Your task to perform on an android device: Play the last video I watched on Youtube Image 0: 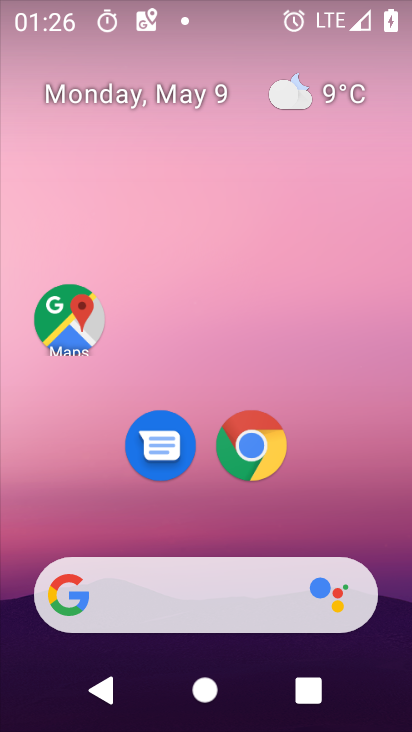
Step 0: drag from (385, 543) to (385, 7)
Your task to perform on an android device: Play the last video I watched on Youtube Image 1: 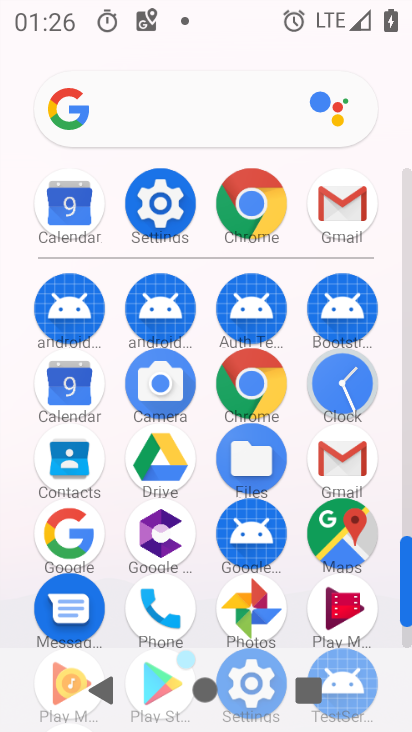
Step 1: drag from (404, 550) to (402, 478)
Your task to perform on an android device: Play the last video I watched on Youtube Image 2: 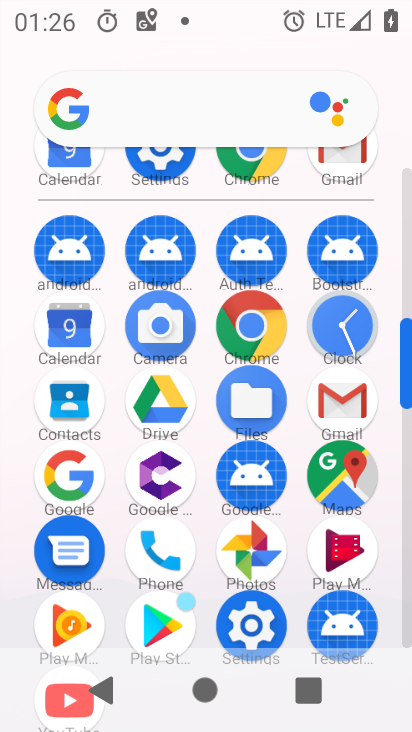
Step 2: click (410, 345)
Your task to perform on an android device: Play the last video I watched on Youtube Image 3: 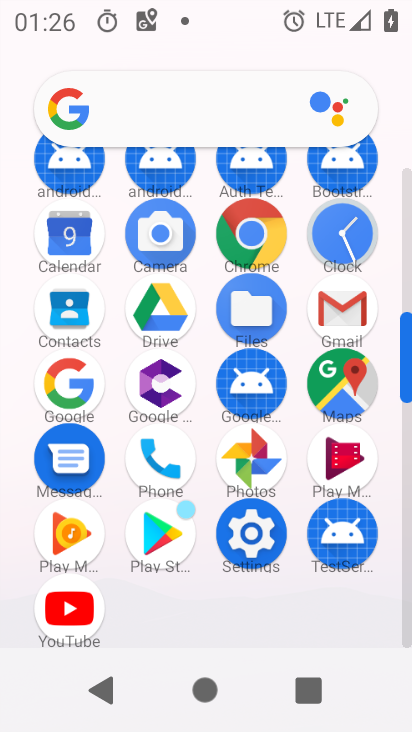
Step 3: click (63, 609)
Your task to perform on an android device: Play the last video I watched on Youtube Image 4: 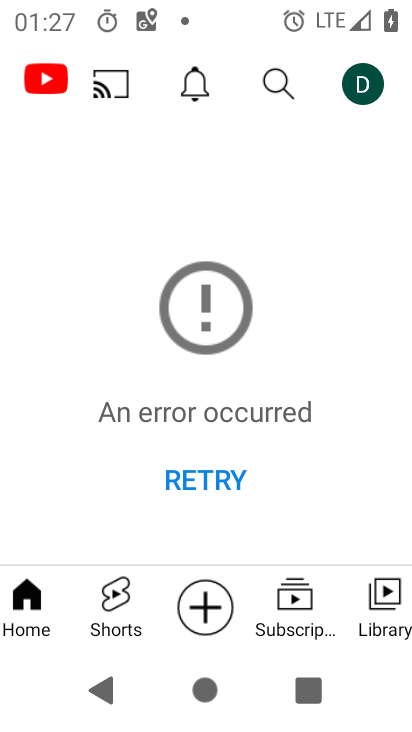
Step 4: click (381, 610)
Your task to perform on an android device: Play the last video I watched on Youtube Image 5: 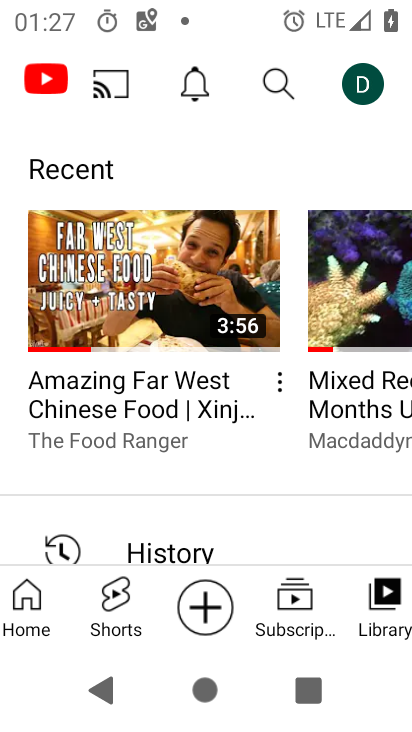
Step 5: click (165, 546)
Your task to perform on an android device: Play the last video I watched on Youtube Image 6: 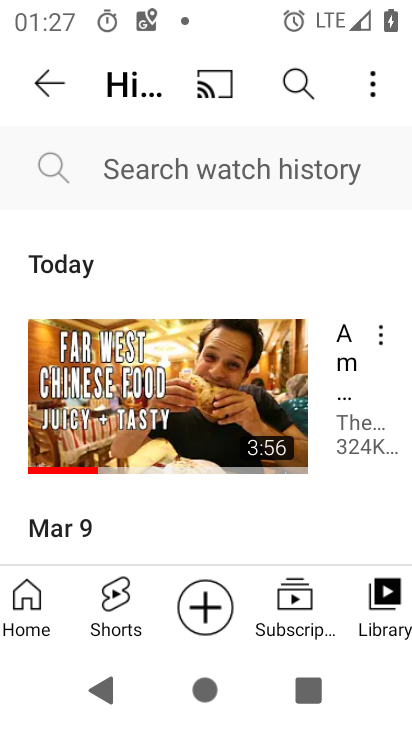
Step 6: drag from (143, 489) to (142, 392)
Your task to perform on an android device: Play the last video I watched on Youtube Image 7: 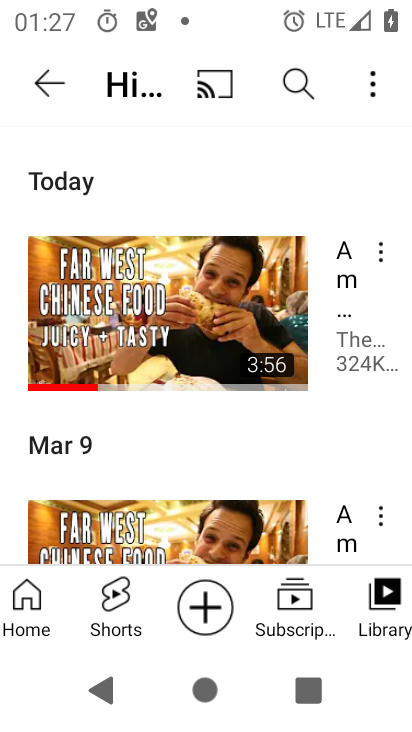
Step 7: click (156, 510)
Your task to perform on an android device: Play the last video I watched on Youtube Image 8: 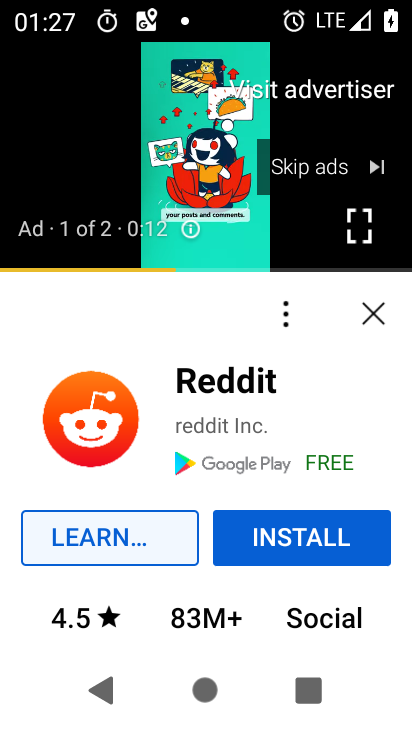
Step 8: click (303, 173)
Your task to perform on an android device: Play the last video I watched on Youtube Image 9: 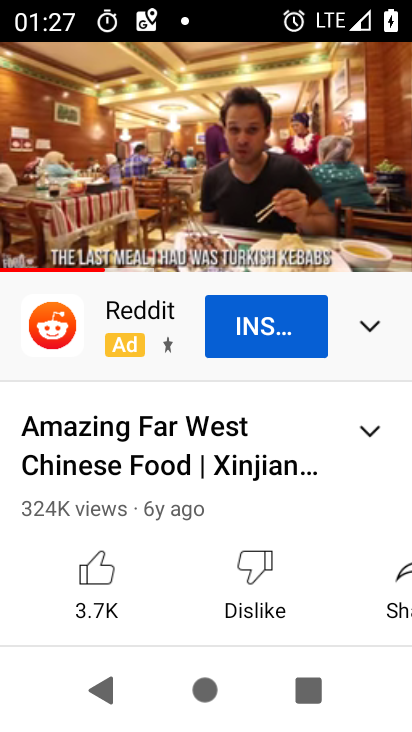
Step 9: task complete